Your task to perform on an android device: Go to CNN.com Image 0: 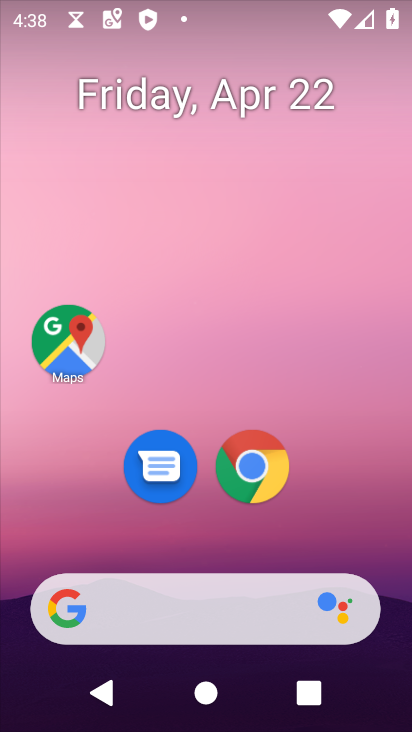
Step 0: click (272, 488)
Your task to perform on an android device: Go to CNN.com Image 1: 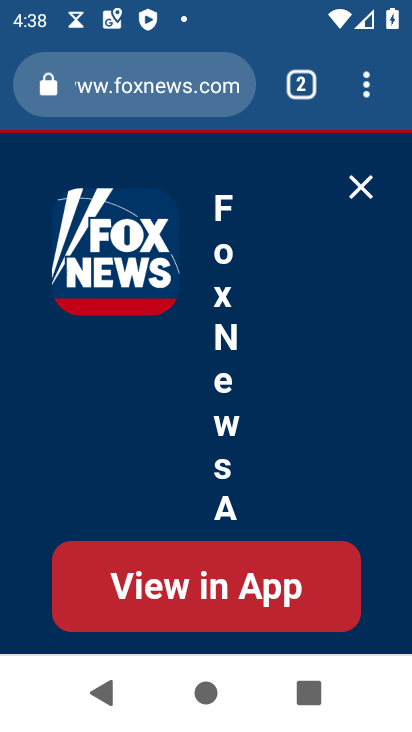
Step 1: click (176, 84)
Your task to perform on an android device: Go to CNN.com Image 2: 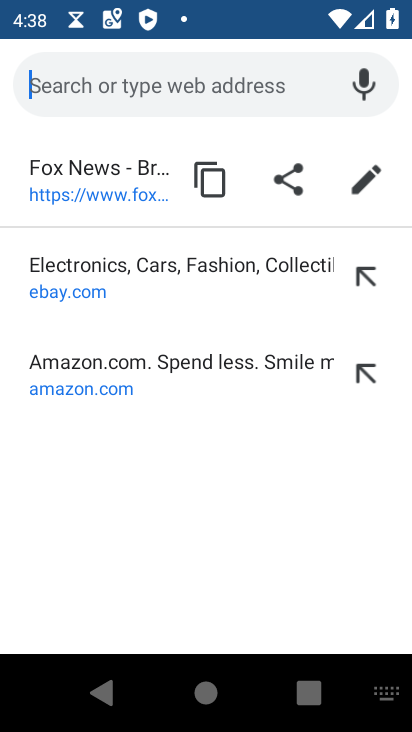
Step 2: type "cnn"
Your task to perform on an android device: Go to CNN.com Image 3: 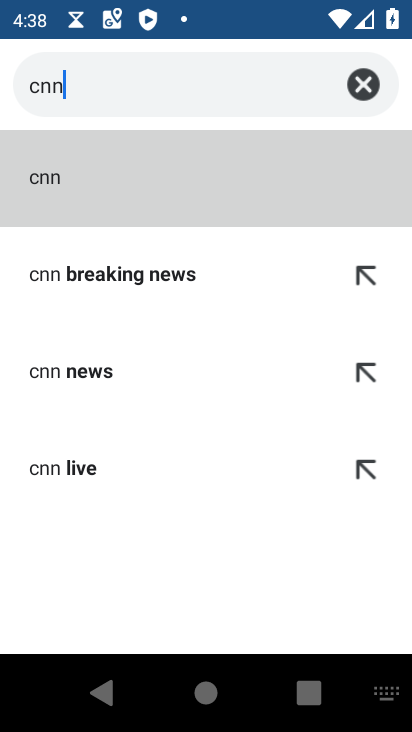
Step 3: type ".com"
Your task to perform on an android device: Go to CNN.com Image 4: 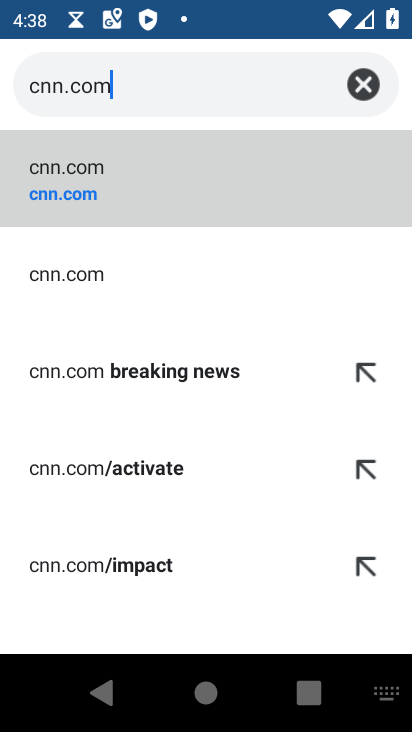
Step 4: click (64, 193)
Your task to perform on an android device: Go to CNN.com Image 5: 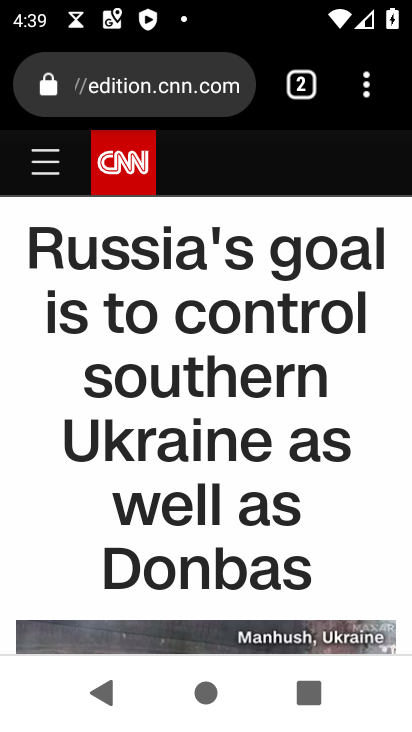
Step 5: task complete